Your task to perform on an android device: all mails in gmail Image 0: 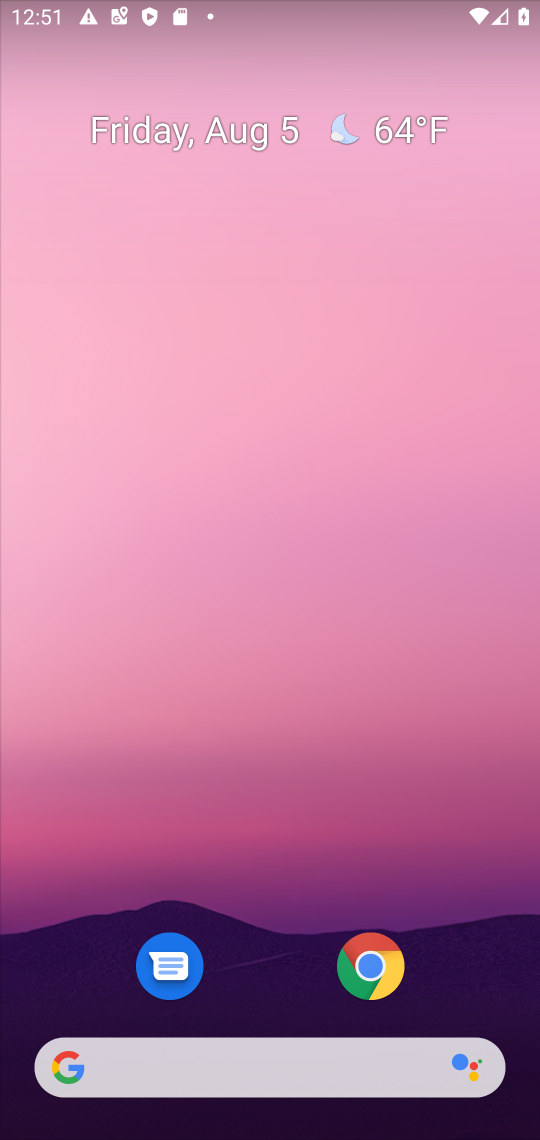
Step 0: press home button
Your task to perform on an android device: all mails in gmail Image 1: 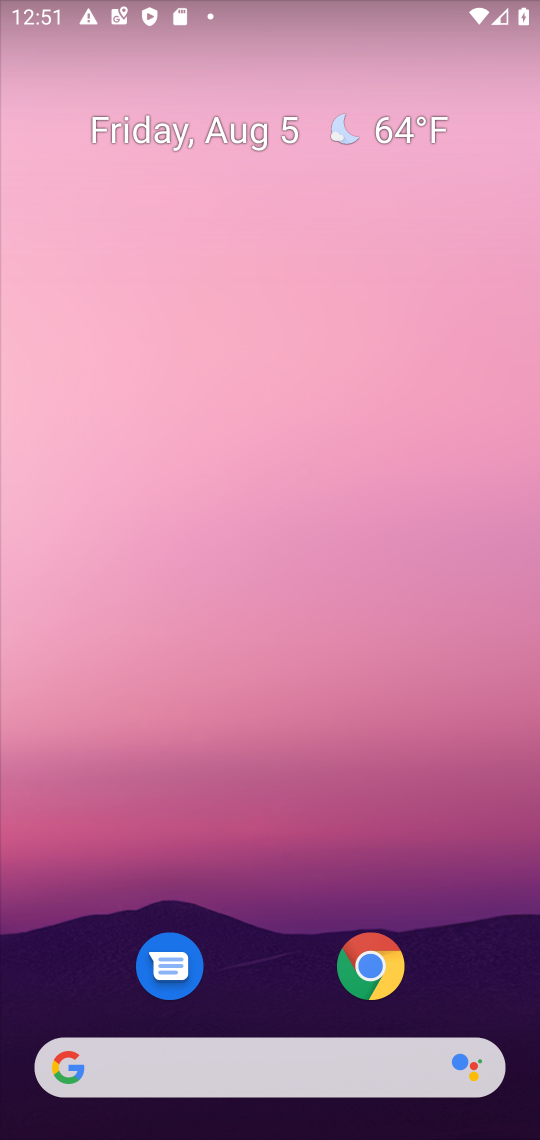
Step 1: drag from (233, 827) to (380, 26)
Your task to perform on an android device: all mails in gmail Image 2: 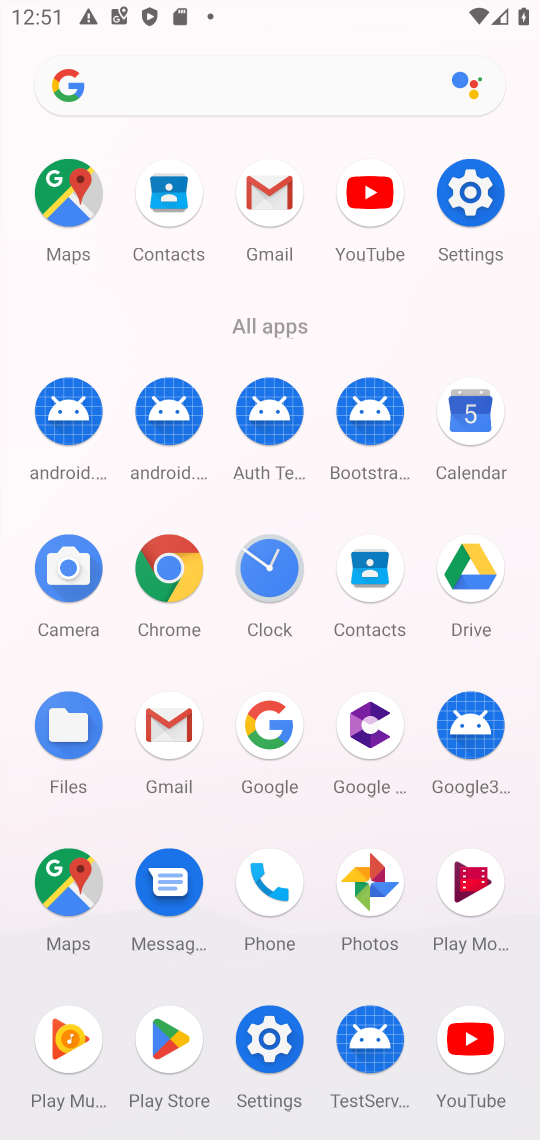
Step 2: click (283, 201)
Your task to perform on an android device: all mails in gmail Image 3: 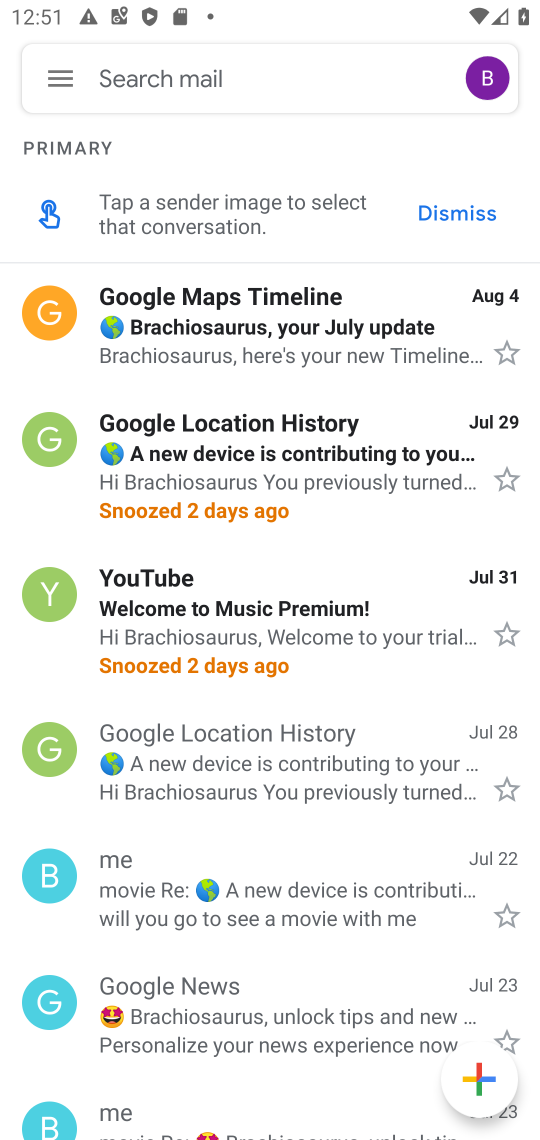
Step 3: task complete